Your task to perform on an android device: turn off sleep mode Image 0: 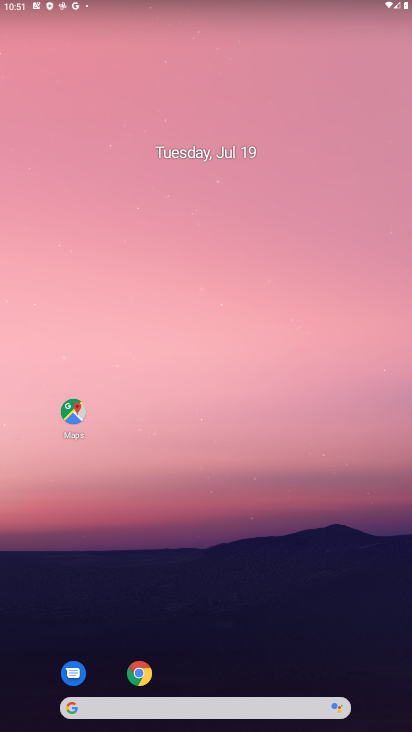
Step 0: task complete